Your task to perform on an android device: check the backup settings in the google photos Image 0: 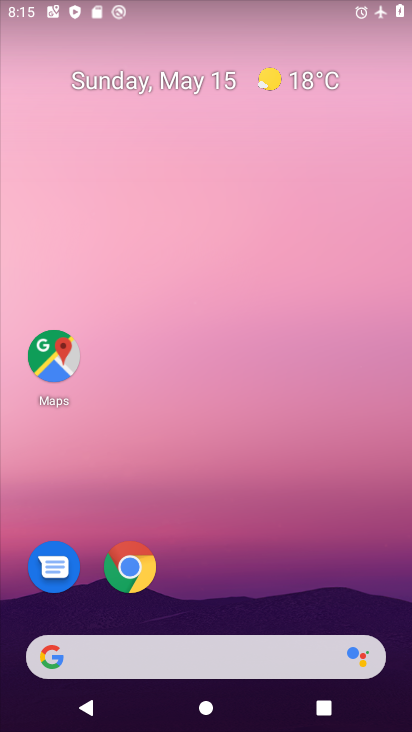
Step 0: drag from (285, 654) to (326, 143)
Your task to perform on an android device: check the backup settings in the google photos Image 1: 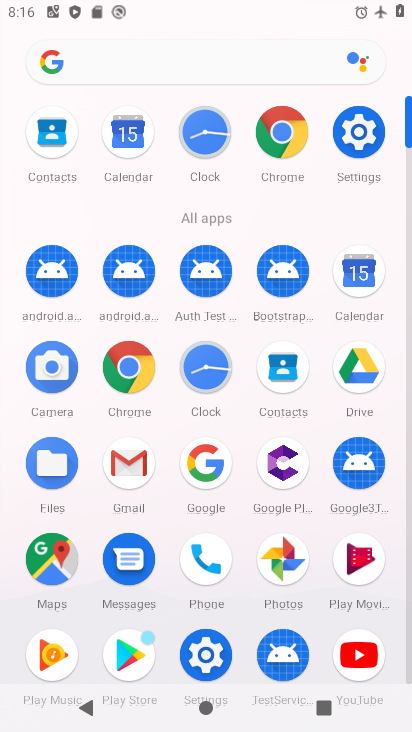
Step 1: click (276, 551)
Your task to perform on an android device: check the backup settings in the google photos Image 2: 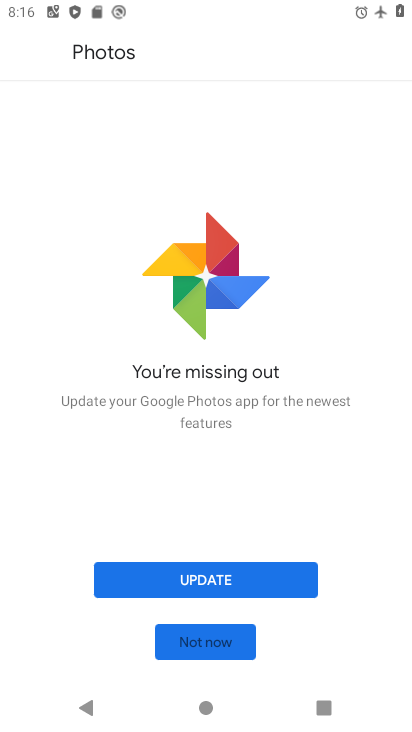
Step 2: click (252, 581)
Your task to perform on an android device: check the backup settings in the google photos Image 3: 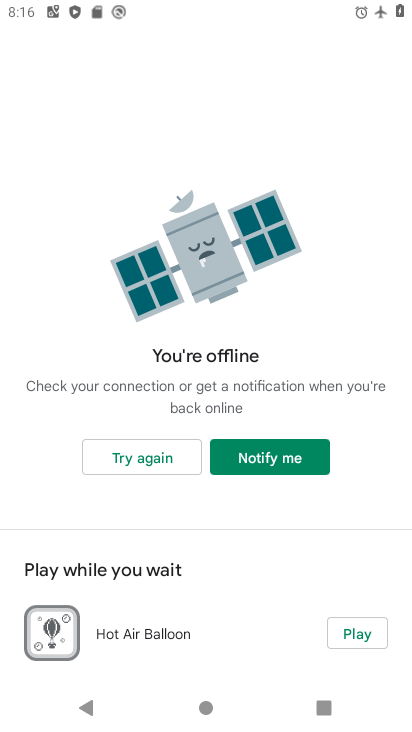
Step 3: click (226, 447)
Your task to perform on an android device: check the backup settings in the google photos Image 4: 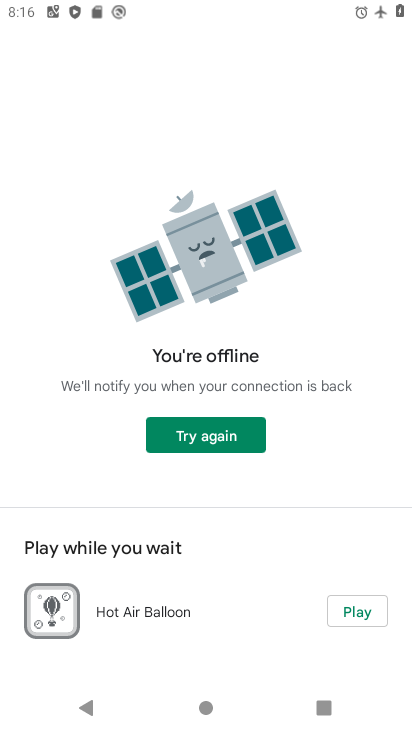
Step 4: click (189, 436)
Your task to perform on an android device: check the backup settings in the google photos Image 5: 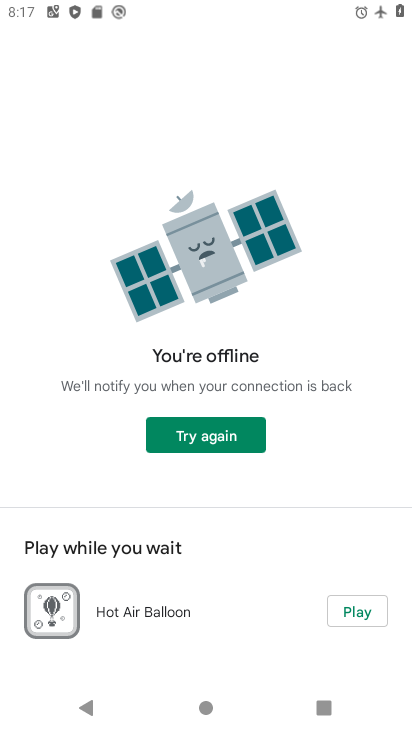
Step 5: task complete